Your task to perform on an android device: open app "Indeed Job Search" Image 0: 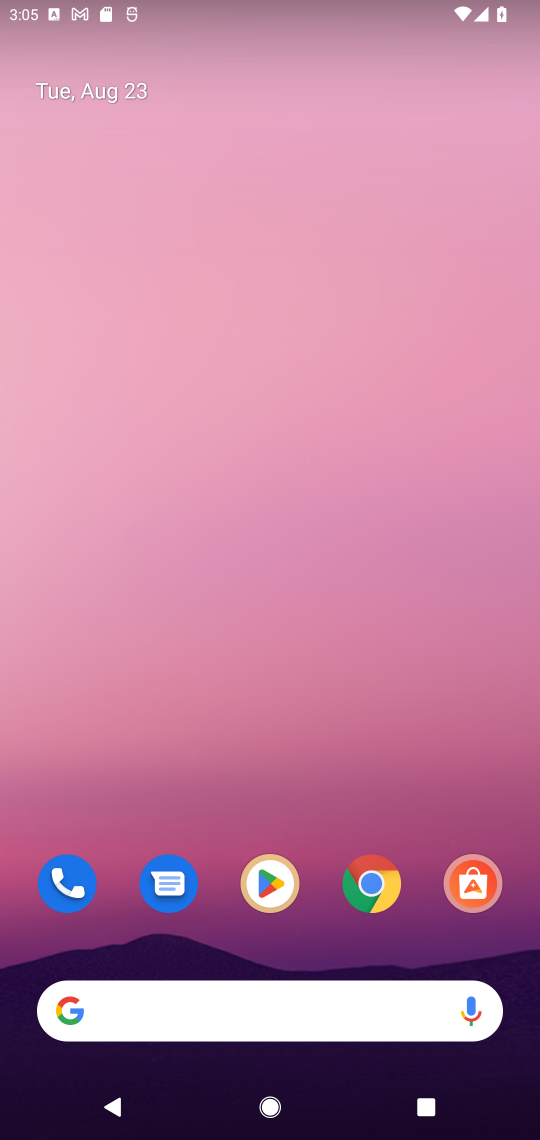
Step 0: click (227, 268)
Your task to perform on an android device: open app "Indeed Job Search" Image 1: 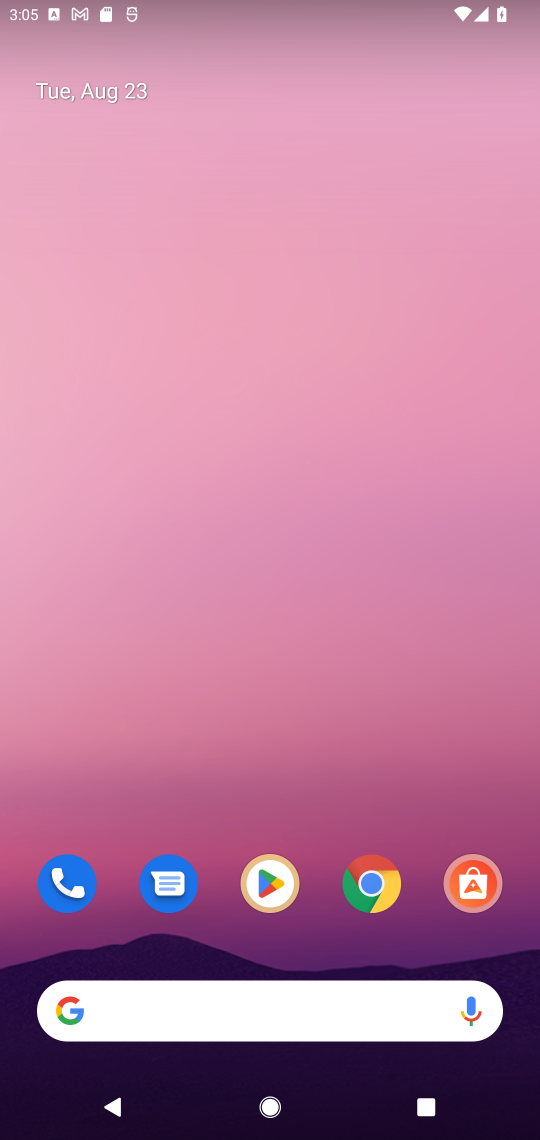
Step 1: drag from (331, 925) to (321, 311)
Your task to perform on an android device: open app "Indeed Job Search" Image 2: 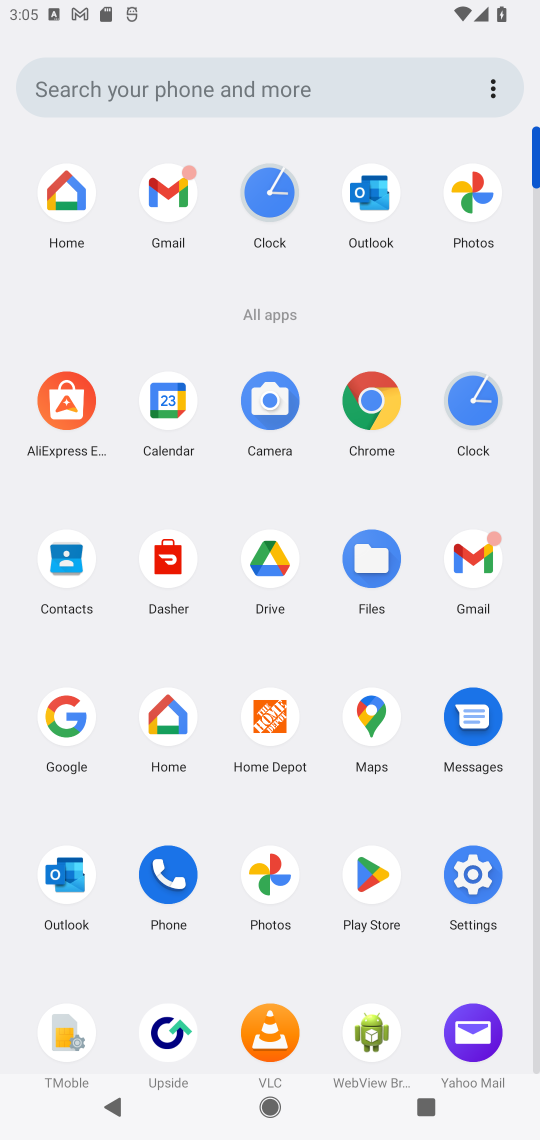
Step 2: click (372, 872)
Your task to perform on an android device: open app "Indeed Job Search" Image 3: 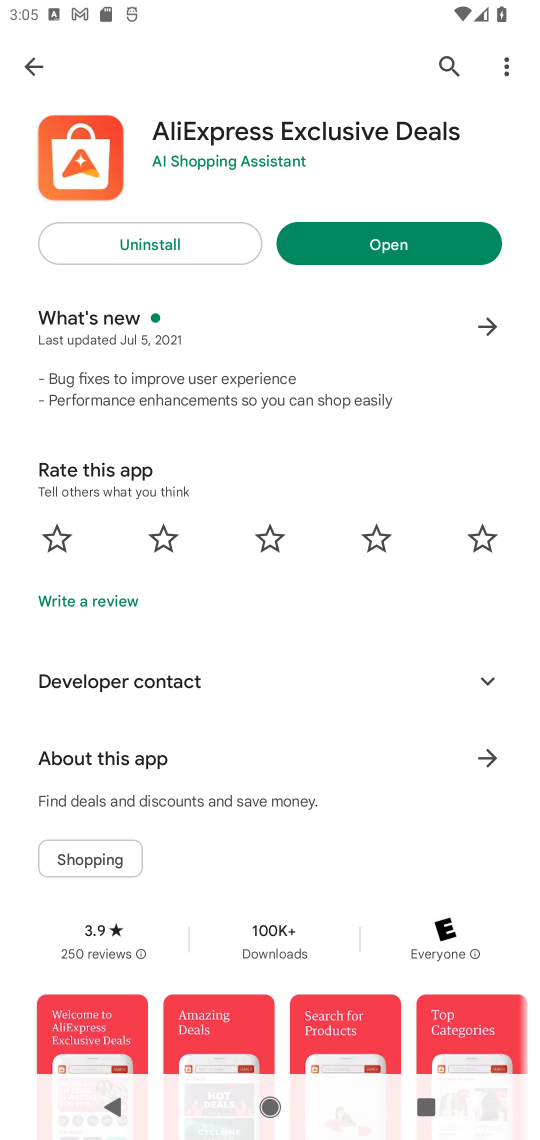
Step 3: click (432, 46)
Your task to perform on an android device: open app "Indeed Job Search" Image 4: 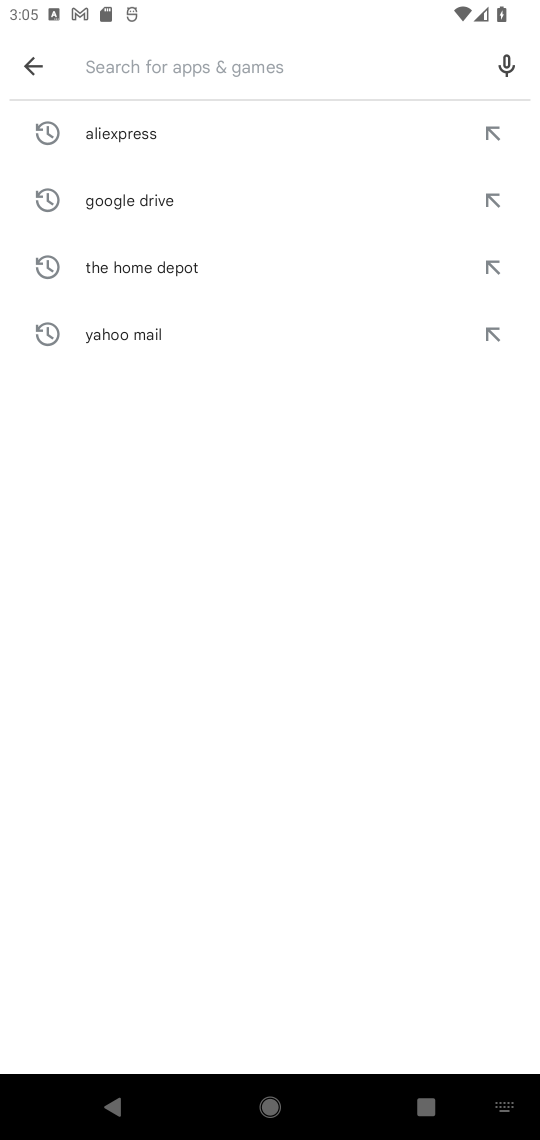
Step 4: type "Indeed Job Search"
Your task to perform on an android device: open app "Indeed Job Search" Image 5: 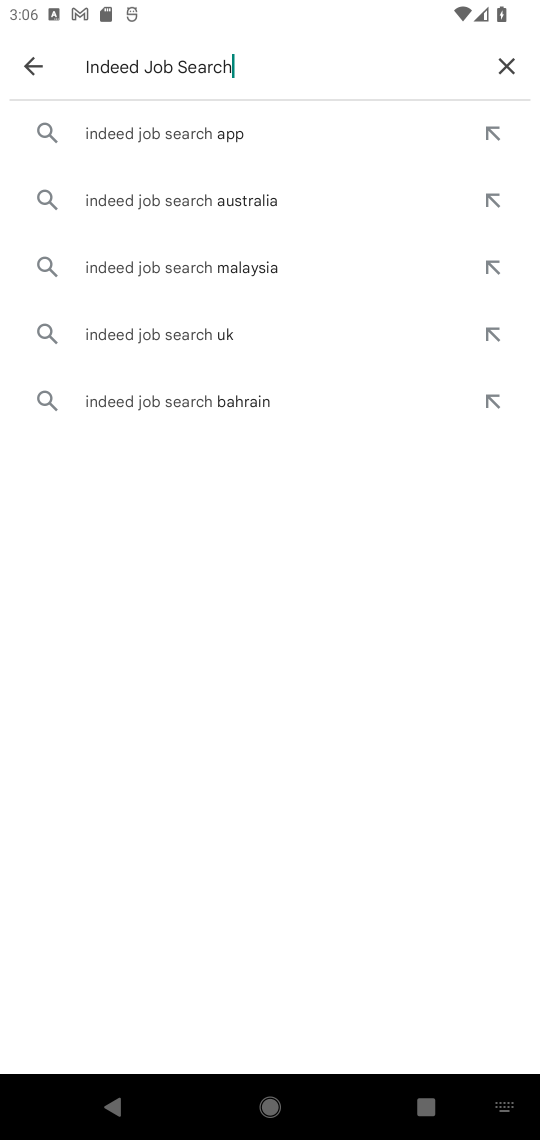
Step 5: click (177, 126)
Your task to perform on an android device: open app "Indeed Job Search" Image 6: 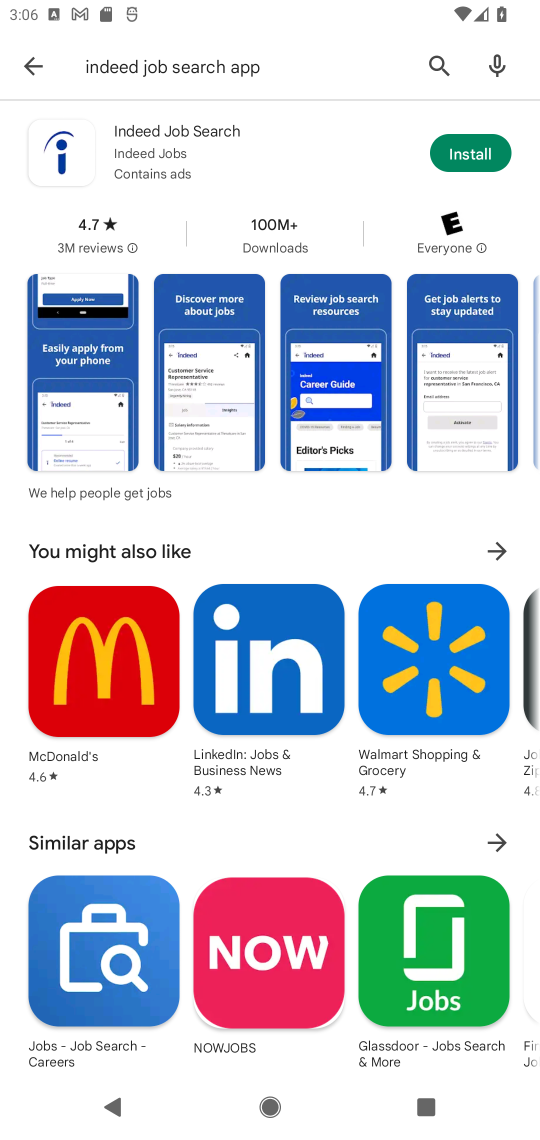
Step 6: click (455, 158)
Your task to perform on an android device: open app "Indeed Job Search" Image 7: 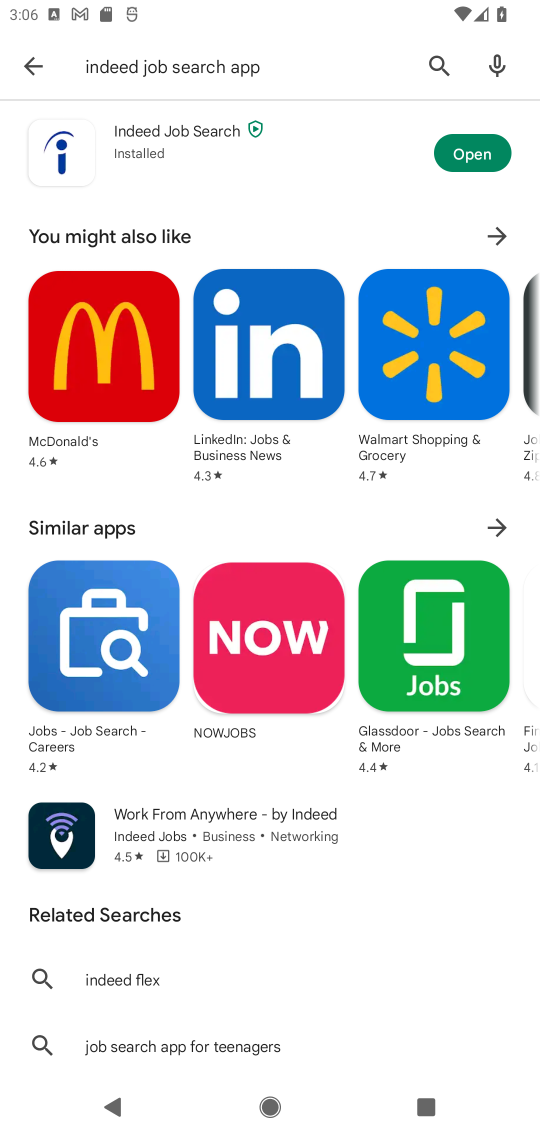
Step 7: click (471, 159)
Your task to perform on an android device: open app "Indeed Job Search" Image 8: 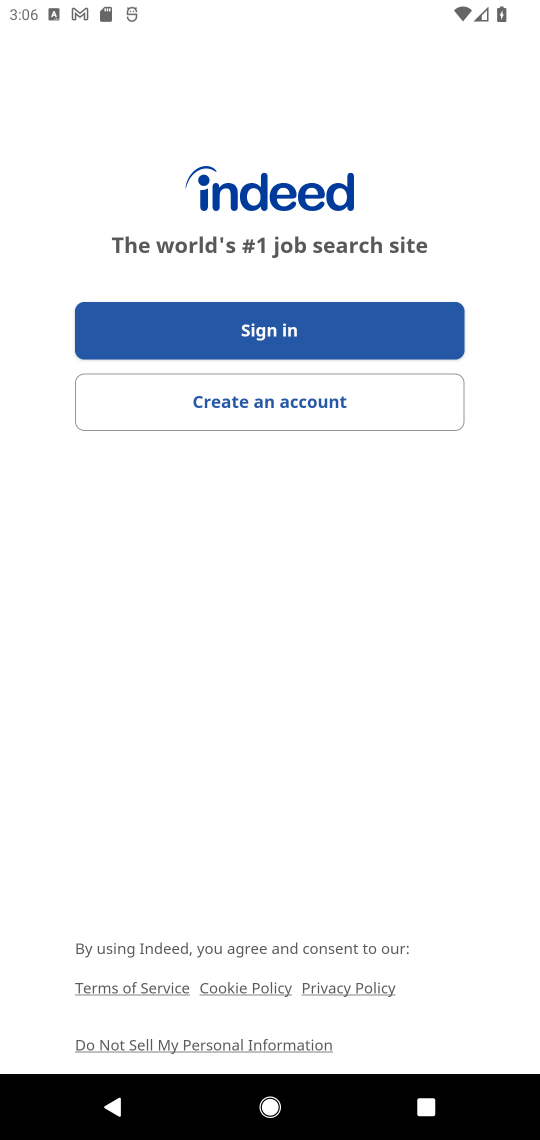
Step 8: task complete